Your task to perform on an android device: delete a single message in the gmail app Image 0: 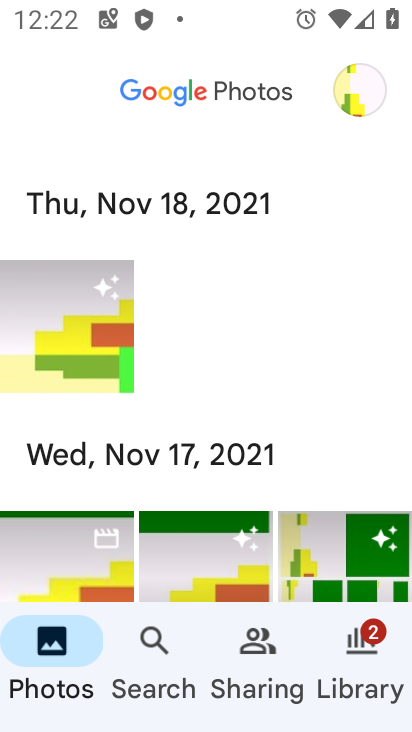
Step 0: press home button
Your task to perform on an android device: delete a single message in the gmail app Image 1: 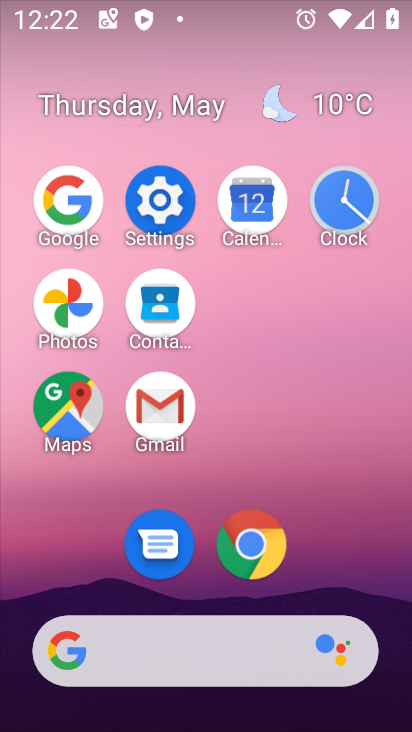
Step 1: click (180, 415)
Your task to perform on an android device: delete a single message in the gmail app Image 2: 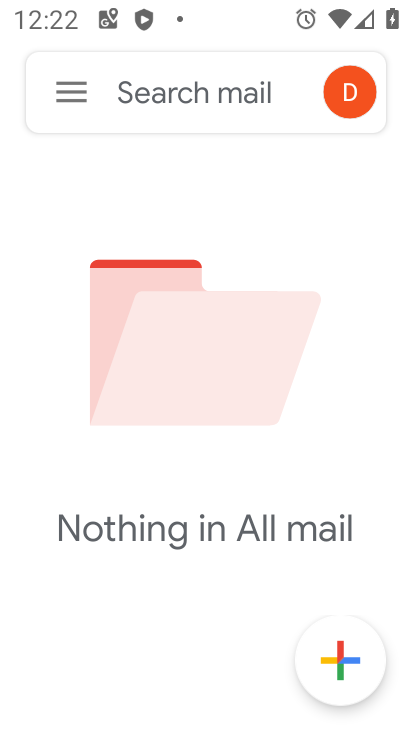
Step 2: click (55, 82)
Your task to perform on an android device: delete a single message in the gmail app Image 3: 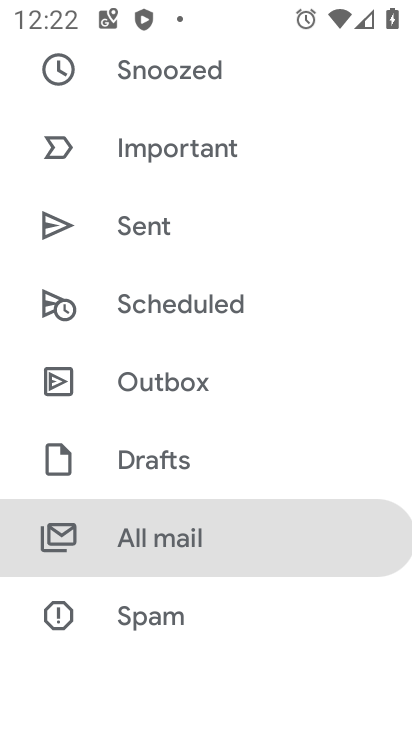
Step 3: click (255, 522)
Your task to perform on an android device: delete a single message in the gmail app Image 4: 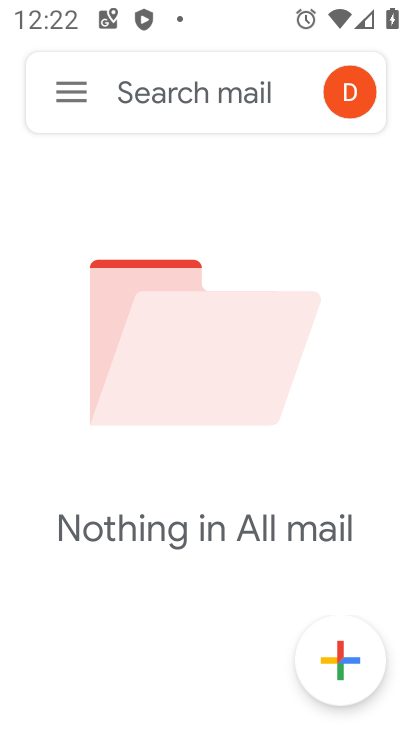
Step 4: task complete